Your task to perform on an android device: open the mobile data screen to see how much data has been used Image 0: 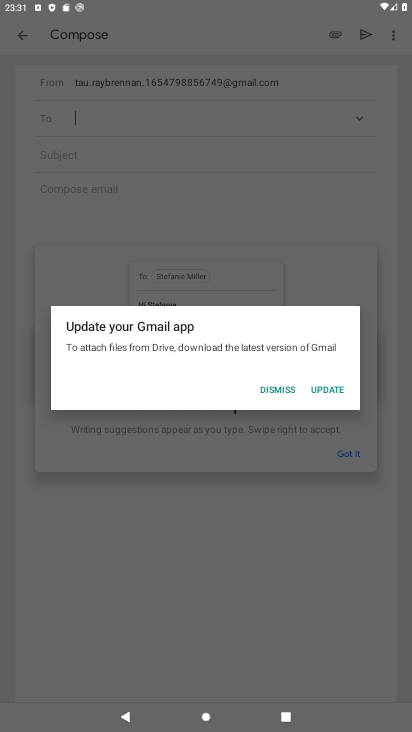
Step 0: press home button
Your task to perform on an android device: open the mobile data screen to see how much data has been used Image 1: 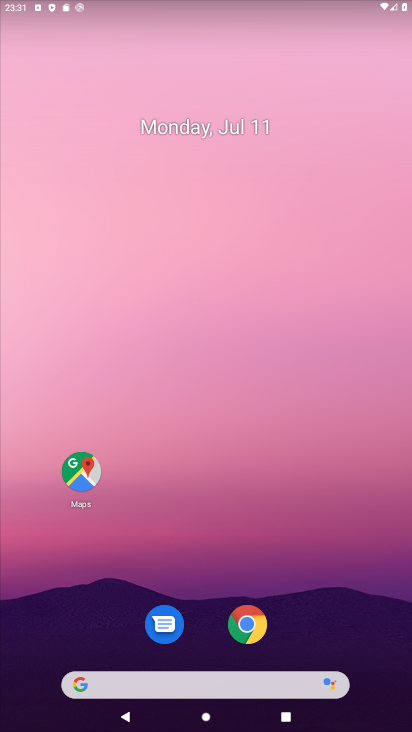
Step 1: drag from (202, 636) to (180, 91)
Your task to perform on an android device: open the mobile data screen to see how much data has been used Image 2: 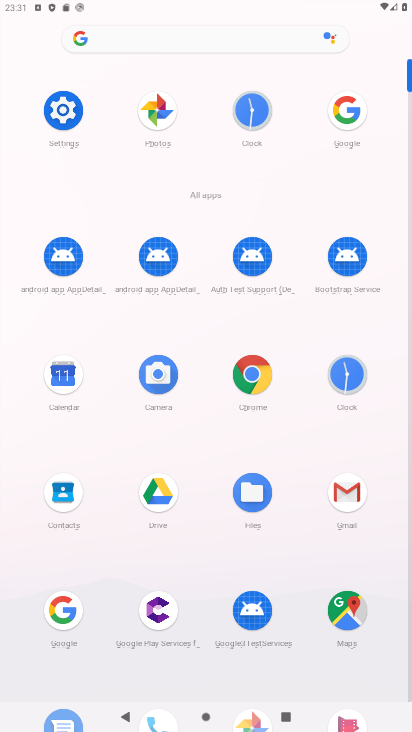
Step 2: click (63, 132)
Your task to perform on an android device: open the mobile data screen to see how much data has been used Image 3: 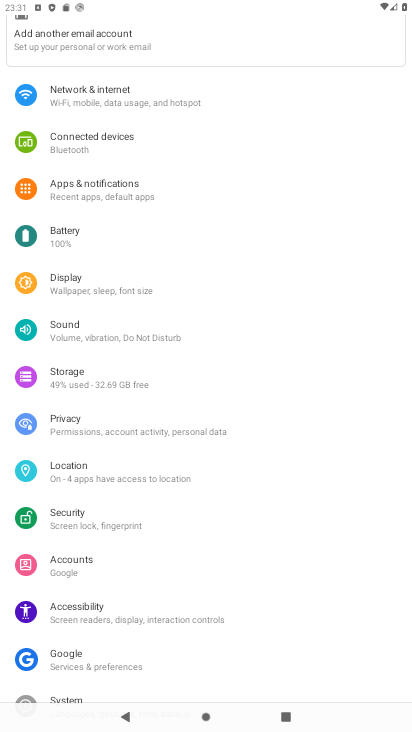
Step 3: click (132, 95)
Your task to perform on an android device: open the mobile data screen to see how much data has been used Image 4: 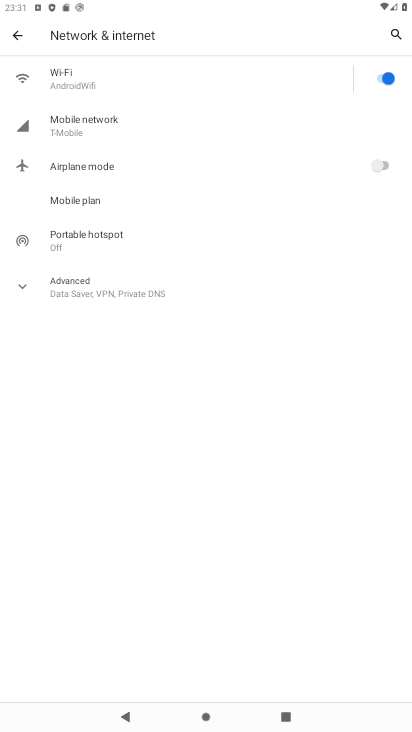
Step 4: click (137, 123)
Your task to perform on an android device: open the mobile data screen to see how much data has been used Image 5: 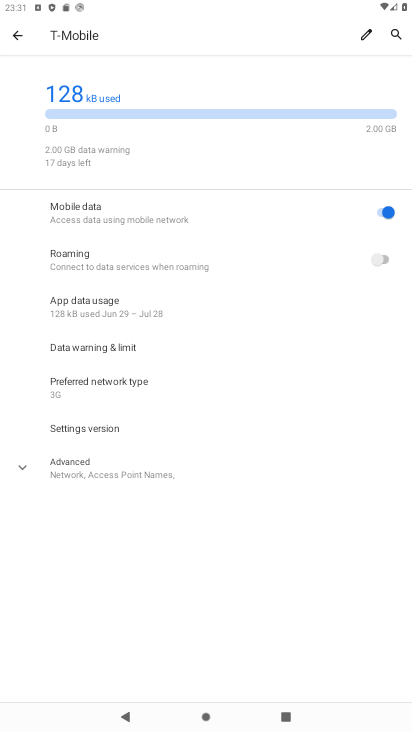
Step 5: click (116, 306)
Your task to perform on an android device: open the mobile data screen to see how much data has been used Image 6: 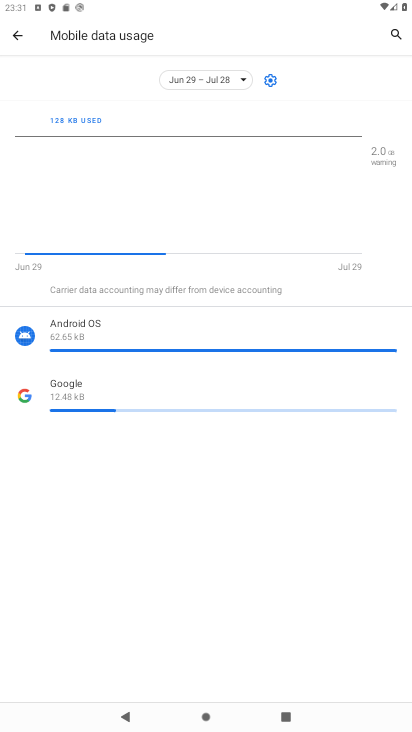
Step 6: task complete